Your task to perform on an android device: toggle wifi Image 0: 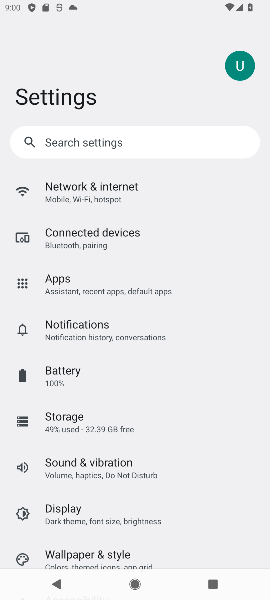
Step 0: click (62, 185)
Your task to perform on an android device: toggle wifi Image 1: 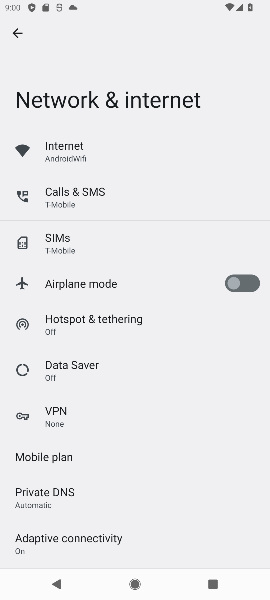
Step 1: click (86, 148)
Your task to perform on an android device: toggle wifi Image 2: 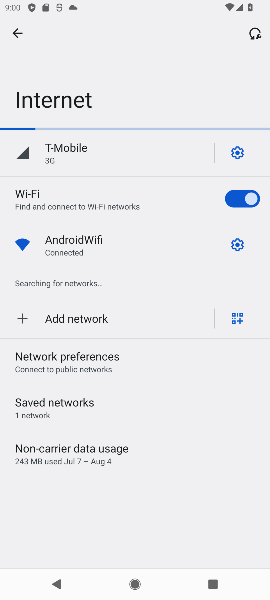
Step 2: click (44, 194)
Your task to perform on an android device: toggle wifi Image 3: 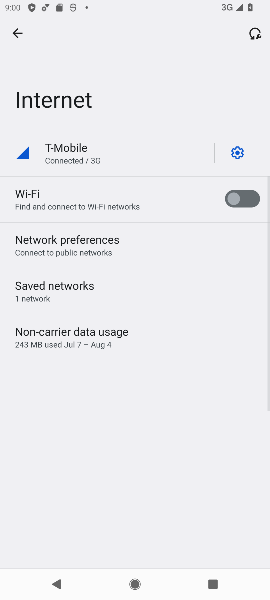
Step 3: click (236, 190)
Your task to perform on an android device: toggle wifi Image 4: 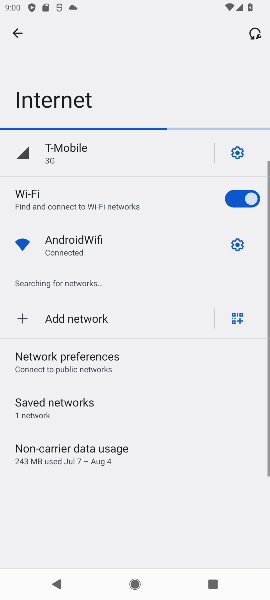
Step 4: task complete